Your task to perform on an android device: open chrome privacy settings Image 0: 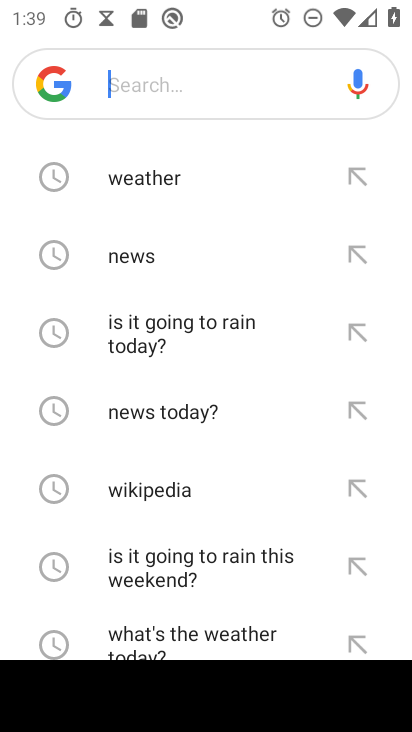
Step 0: press home button
Your task to perform on an android device: open chrome privacy settings Image 1: 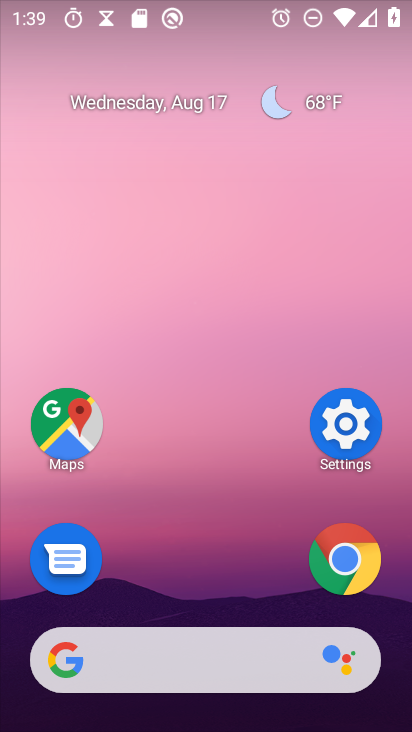
Step 1: click (361, 562)
Your task to perform on an android device: open chrome privacy settings Image 2: 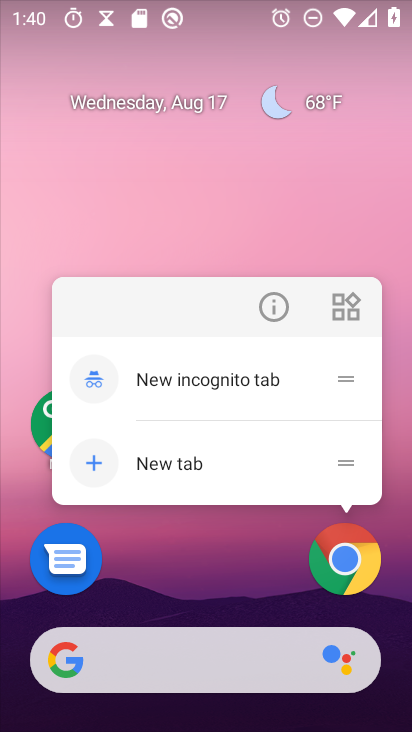
Step 2: click (356, 563)
Your task to perform on an android device: open chrome privacy settings Image 3: 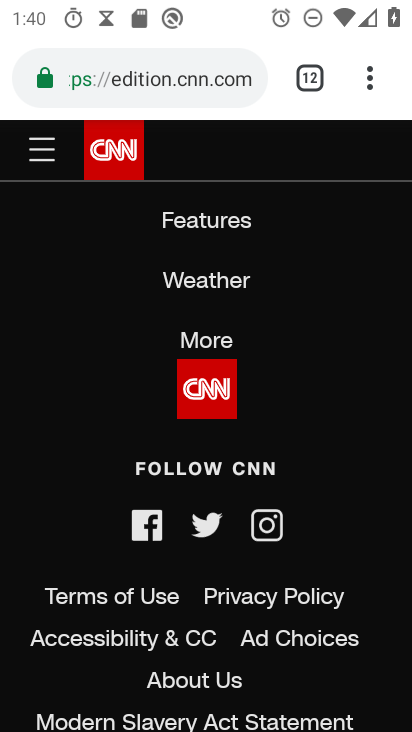
Step 3: drag from (370, 75) to (149, 624)
Your task to perform on an android device: open chrome privacy settings Image 4: 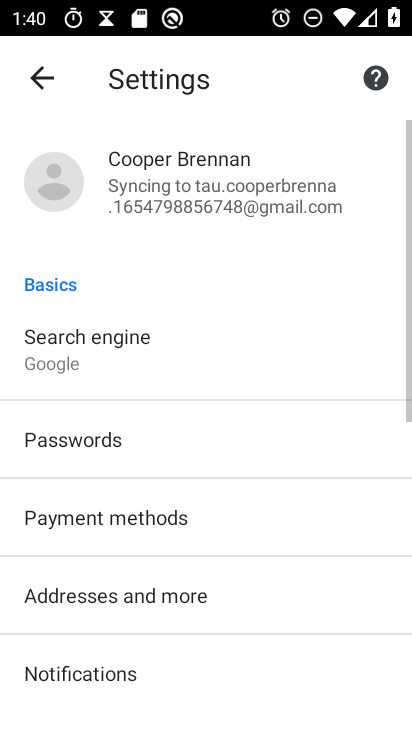
Step 4: drag from (181, 597) to (328, 186)
Your task to perform on an android device: open chrome privacy settings Image 5: 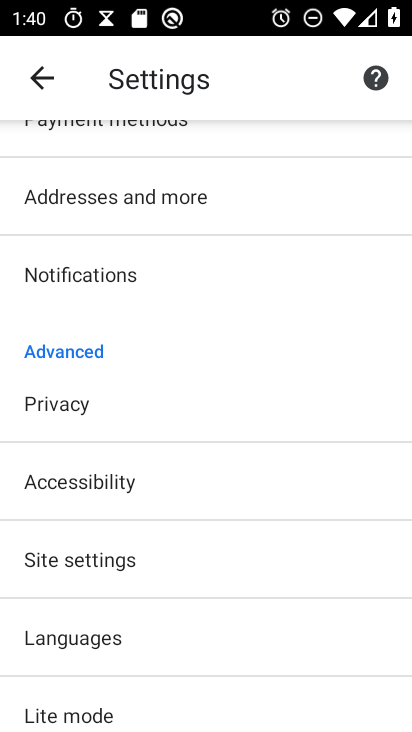
Step 5: click (72, 406)
Your task to perform on an android device: open chrome privacy settings Image 6: 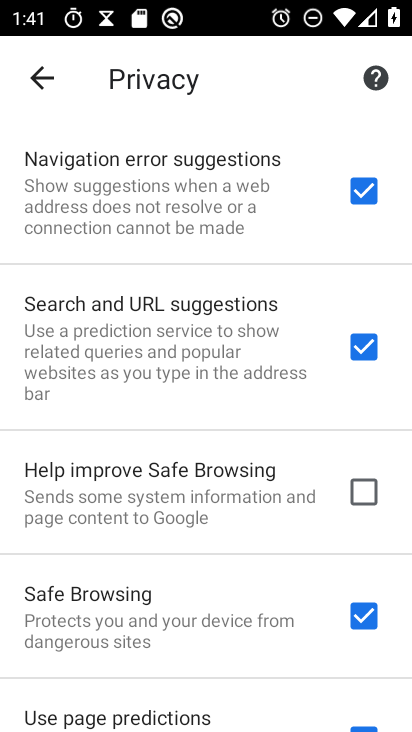
Step 6: task complete